Your task to perform on an android device: open device folders in google photos Image 0: 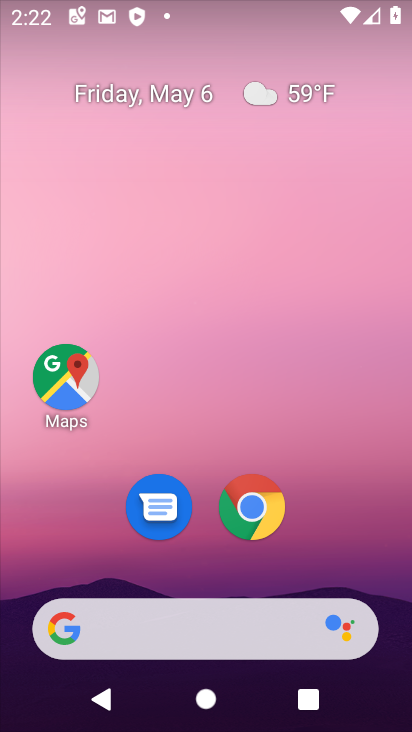
Step 0: drag from (324, 543) to (335, 49)
Your task to perform on an android device: open device folders in google photos Image 1: 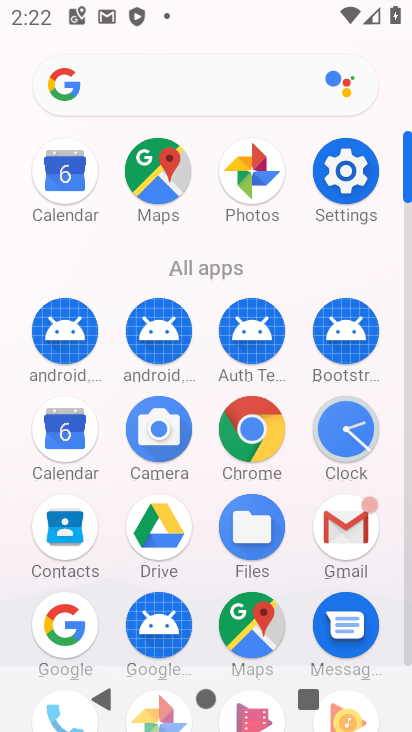
Step 1: click (304, 574)
Your task to perform on an android device: open device folders in google photos Image 2: 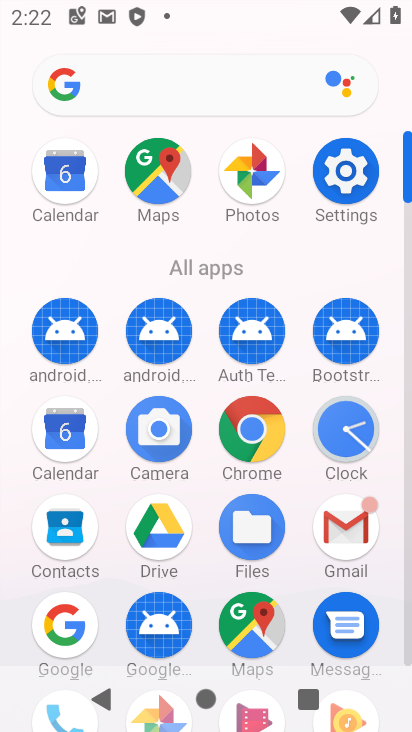
Step 2: click (263, 191)
Your task to perform on an android device: open device folders in google photos Image 3: 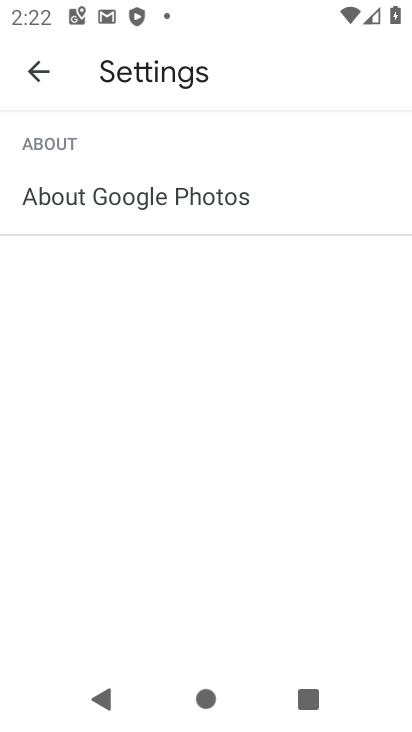
Step 3: press back button
Your task to perform on an android device: open device folders in google photos Image 4: 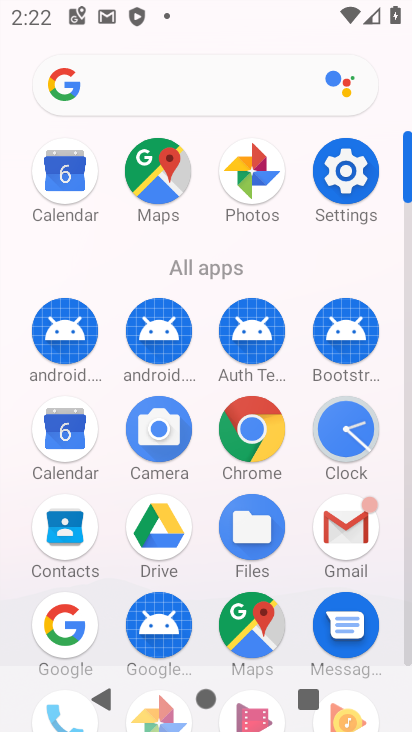
Step 4: click (253, 182)
Your task to perform on an android device: open device folders in google photos Image 5: 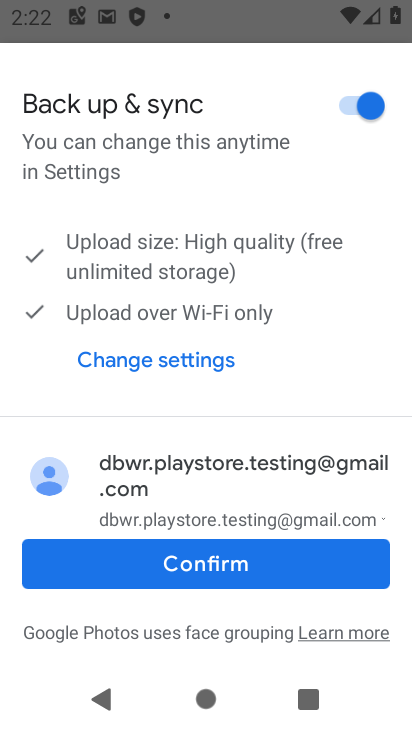
Step 5: click (213, 572)
Your task to perform on an android device: open device folders in google photos Image 6: 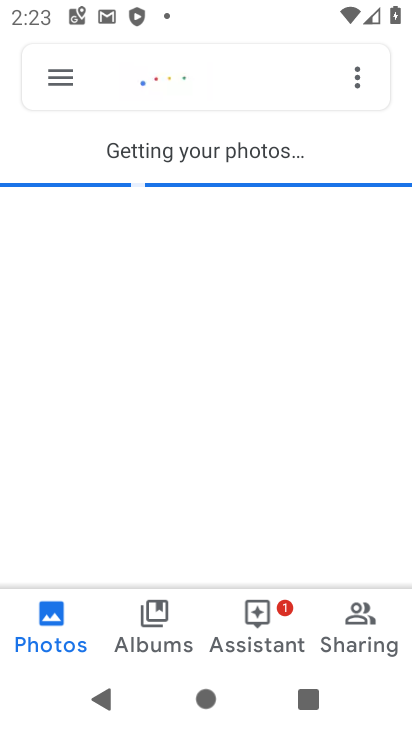
Step 6: click (161, 88)
Your task to perform on an android device: open device folders in google photos Image 7: 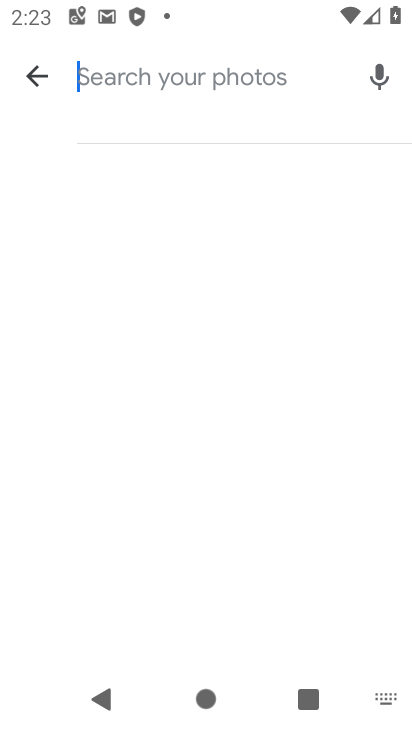
Step 7: click (64, 83)
Your task to perform on an android device: open device folders in google photos Image 8: 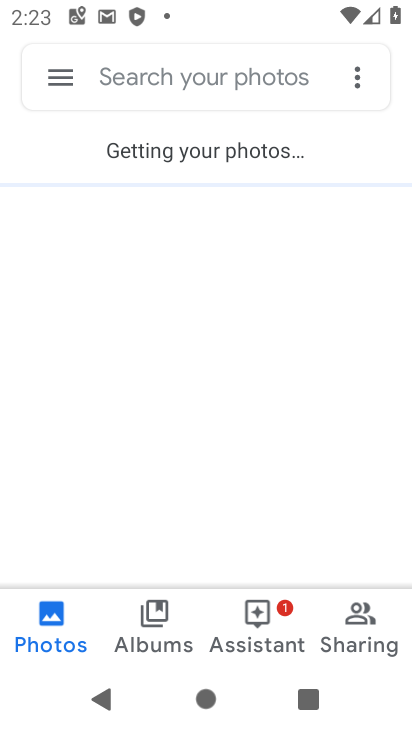
Step 8: click (56, 79)
Your task to perform on an android device: open device folders in google photos Image 9: 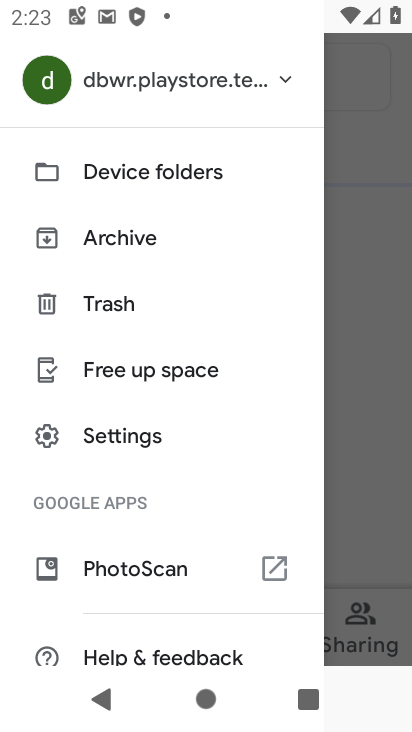
Step 9: click (127, 172)
Your task to perform on an android device: open device folders in google photos Image 10: 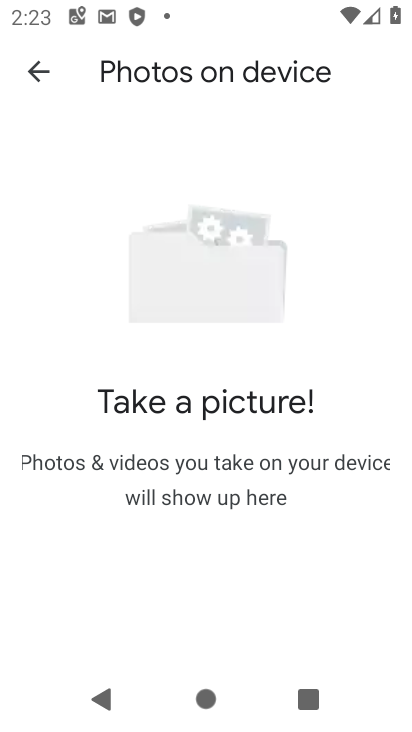
Step 10: task complete